Your task to perform on an android device: Check the news Image 0: 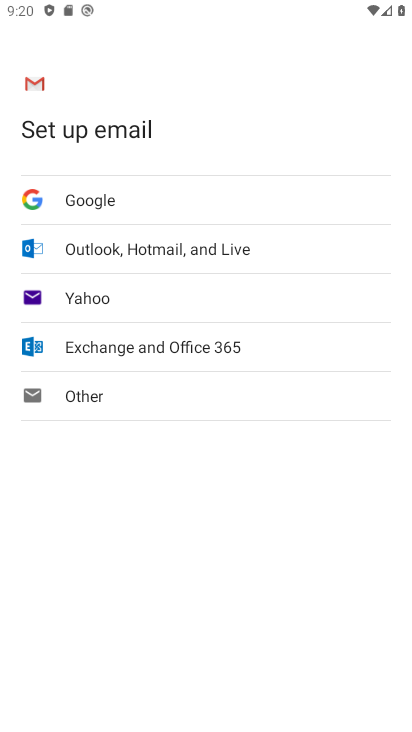
Step 0: drag from (225, 594) to (258, 253)
Your task to perform on an android device: Check the news Image 1: 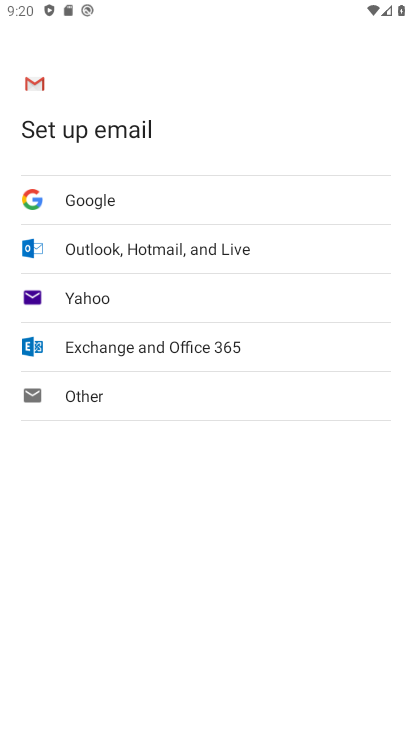
Step 1: press home button
Your task to perform on an android device: Check the news Image 2: 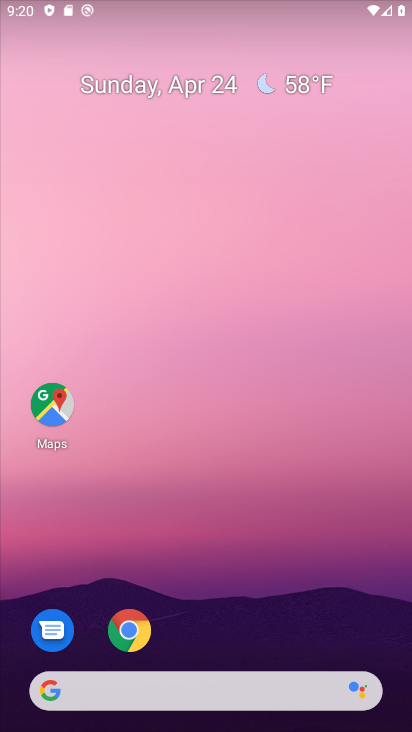
Step 2: drag from (272, 477) to (333, 155)
Your task to perform on an android device: Check the news Image 3: 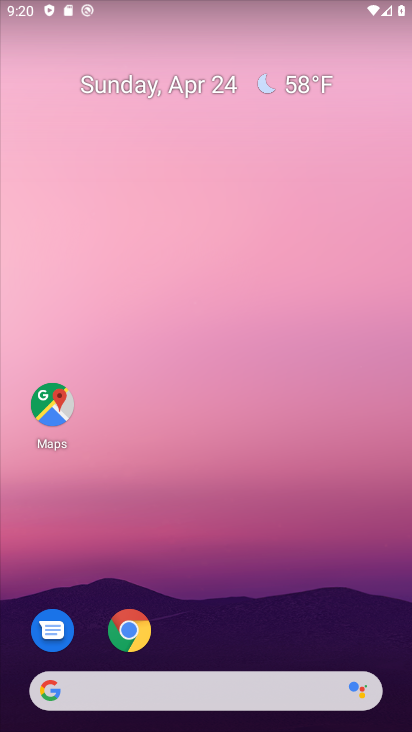
Step 3: drag from (199, 598) to (255, 52)
Your task to perform on an android device: Check the news Image 4: 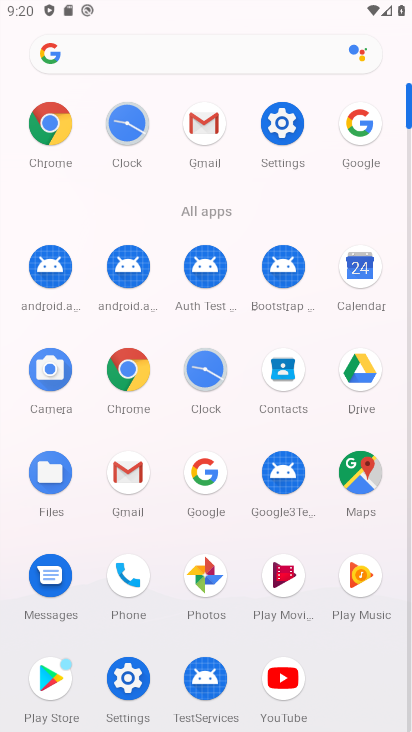
Step 4: click (202, 481)
Your task to perform on an android device: Check the news Image 5: 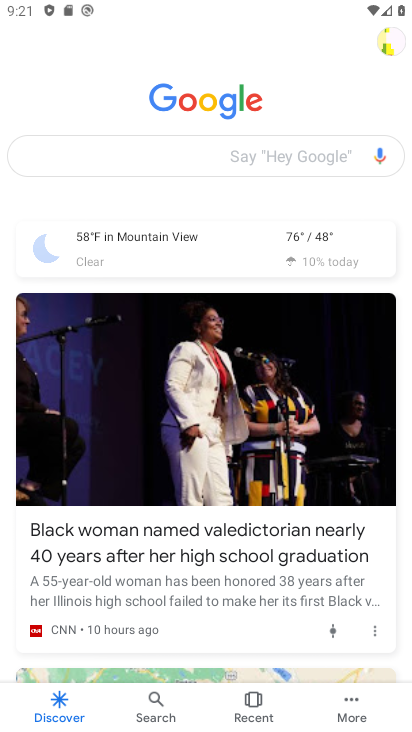
Step 5: click (232, 158)
Your task to perform on an android device: Check the news Image 6: 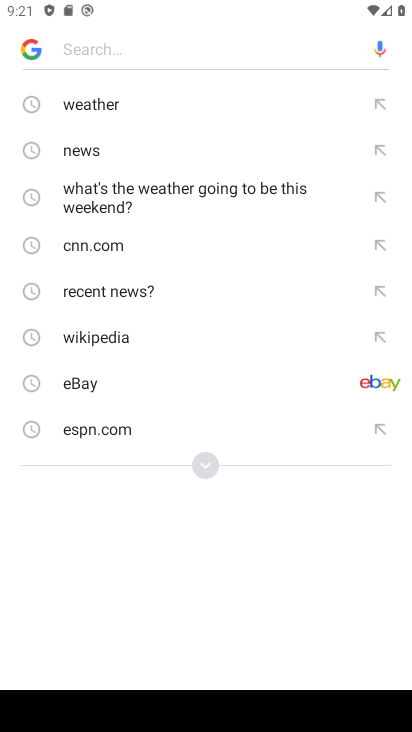
Step 6: click (150, 151)
Your task to perform on an android device: Check the news Image 7: 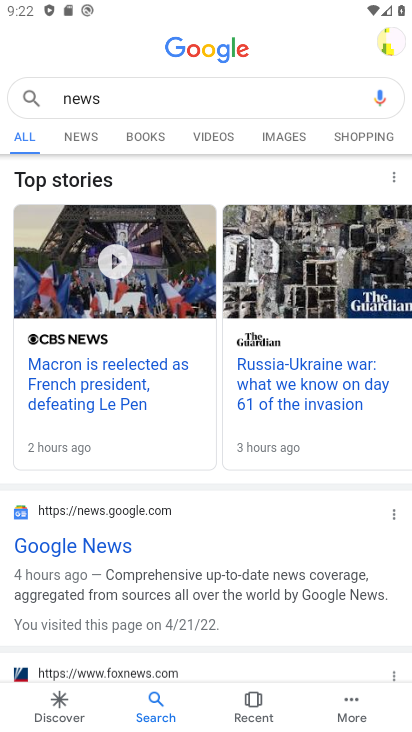
Step 7: click (78, 138)
Your task to perform on an android device: Check the news Image 8: 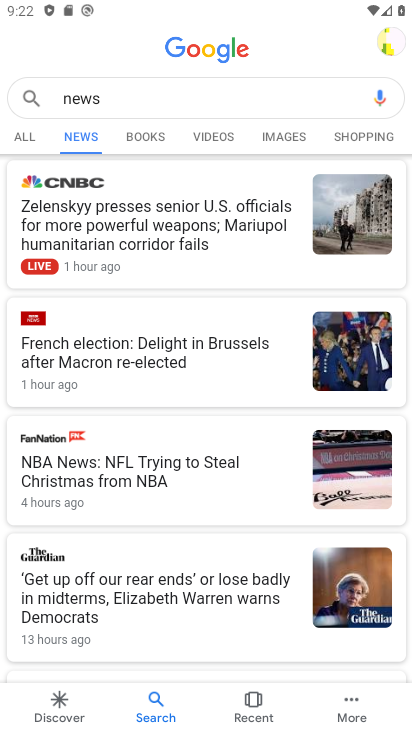
Step 8: task complete